Your task to perform on an android device: Search for pizza restaurants on Maps Image 0: 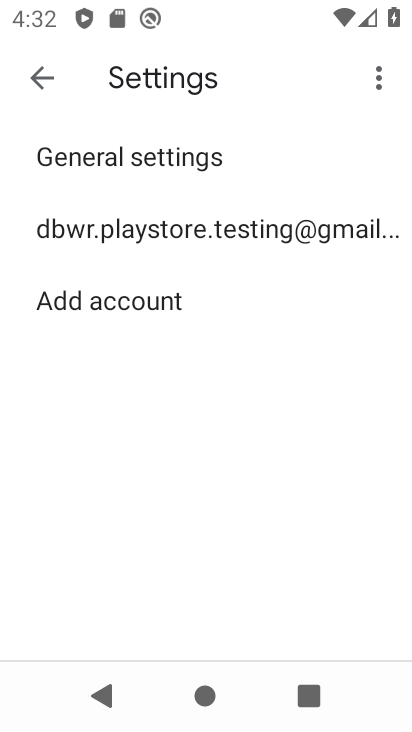
Step 0: press home button
Your task to perform on an android device: Search for pizza restaurants on Maps Image 1: 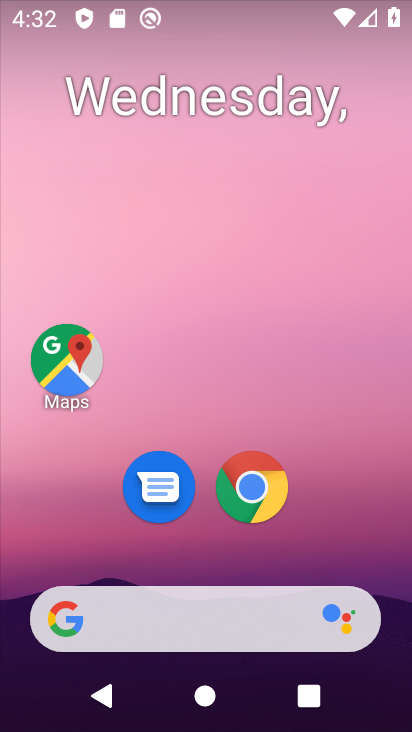
Step 1: click (71, 352)
Your task to perform on an android device: Search for pizza restaurants on Maps Image 2: 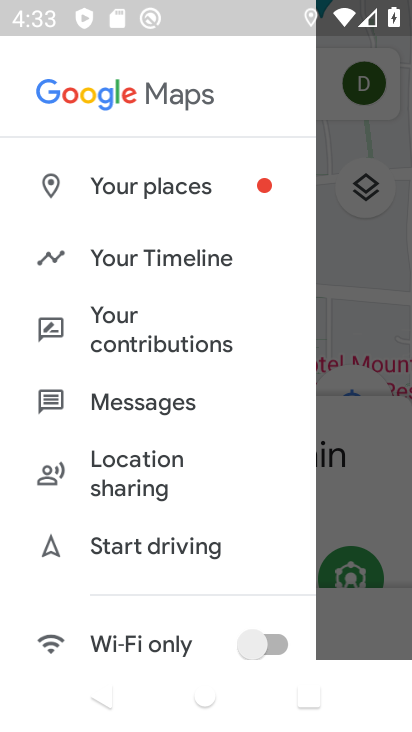
Step 2: click (348, 285)
Your task to perform on an android device: Search for pizza restaurants on Maps Image 3: 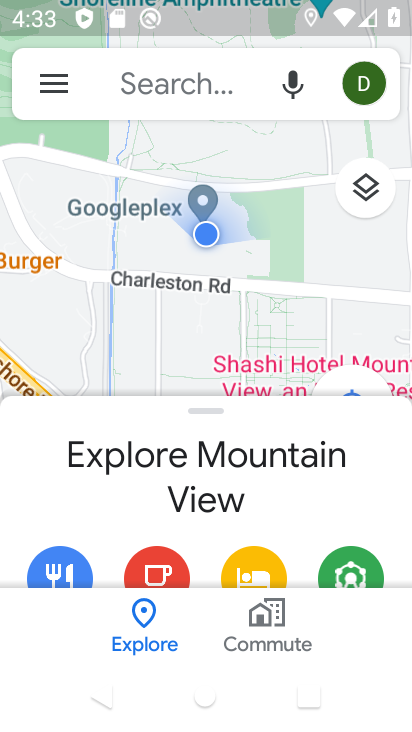
Step 3: click (146, 85)
Your task to perform on an android device: Search for pizza restaurants on Maps Image 4: 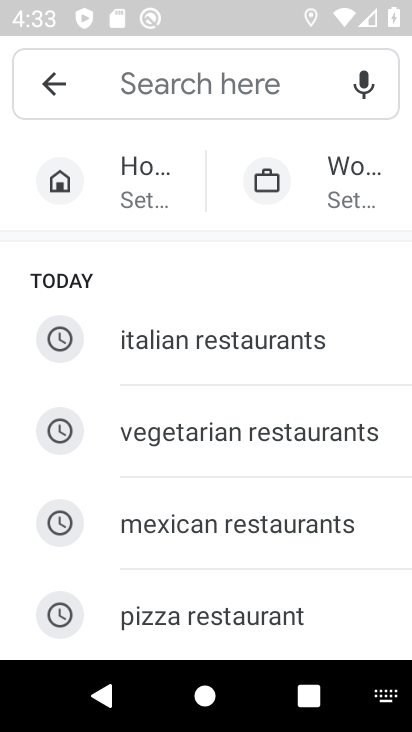
Step 4: click (199, 615)
Your task to perform on an android device: Search for pizza restaurants on Maps Image 5: 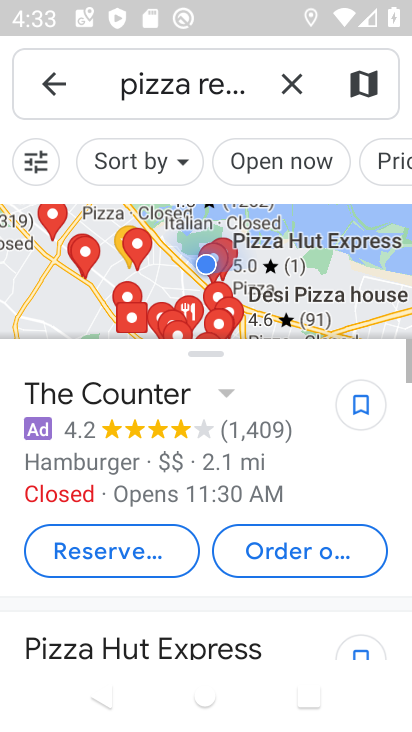
Step 5: task complete